Your task to perform on an android device: Open the web browser Image 0: 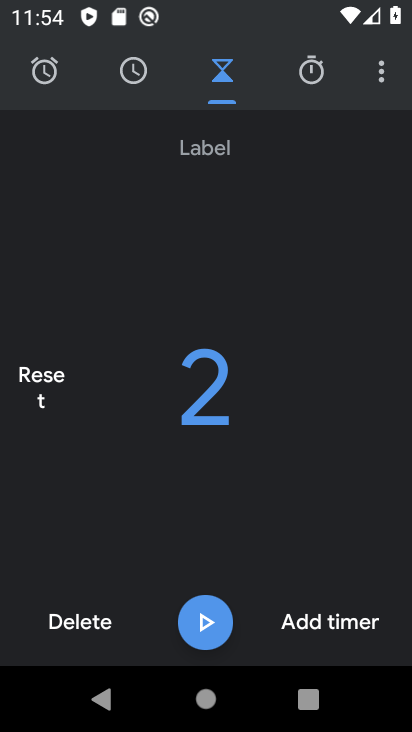
Step 0: press home button
Your task to perform on an android device: Open the web browser Image 1: 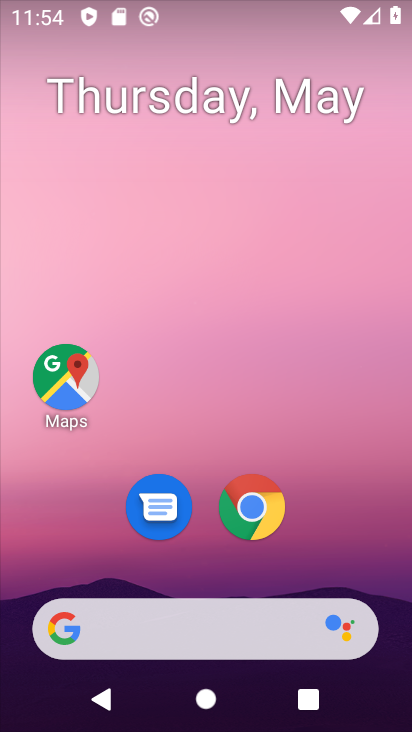
Step 1: click (248, 533)
Your task to perform on an android device: Open the web browser Image 2: 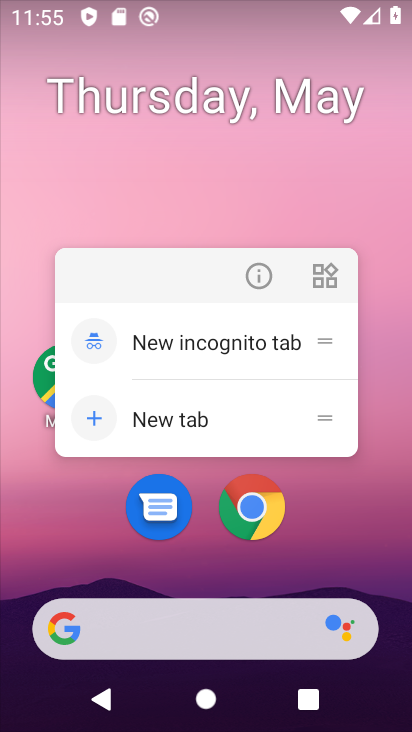
Step 2: click (260, 515)
Your task to perform on an android device: Open the web browser Image 3: 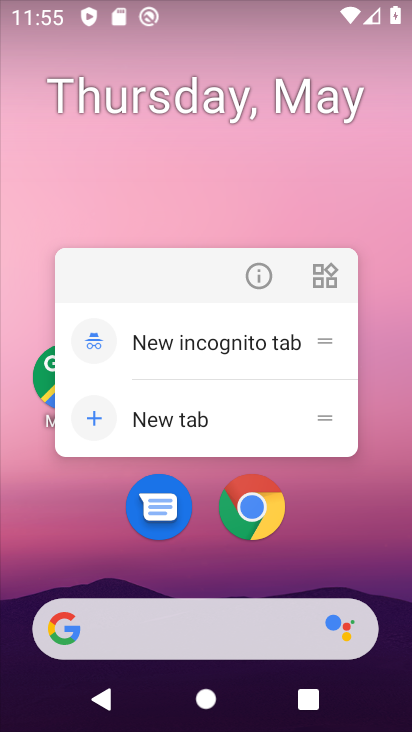
Step 3: click (259, 514)
Your task to perform on an android device: Open the web browser Image 4: 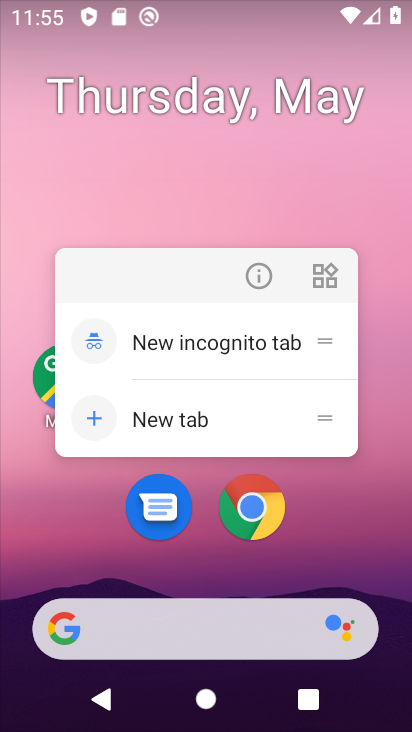
Step 4: click (260, 519)
Your task to perform on an android device: Open the web browser Image 5: 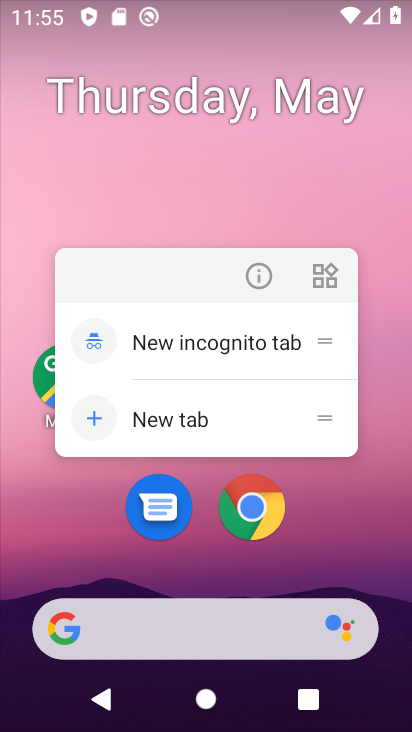
Step 5: click (260, 506)
Your task to perform on an android device: Open the web browser Image 6: 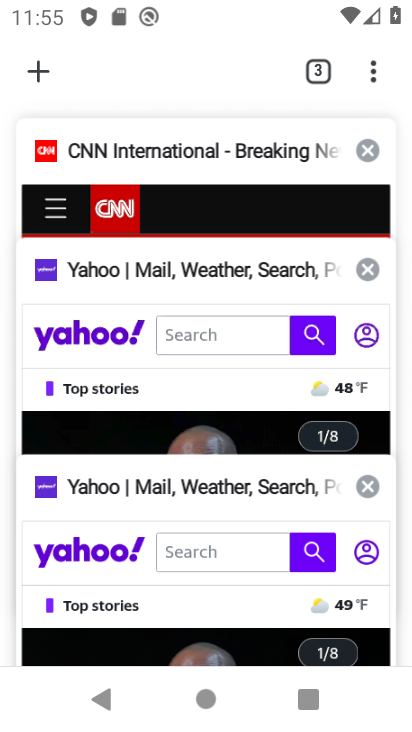
Step 6: task complete